Your task to perform on an android device: add a contact in the contacts app Image 0: 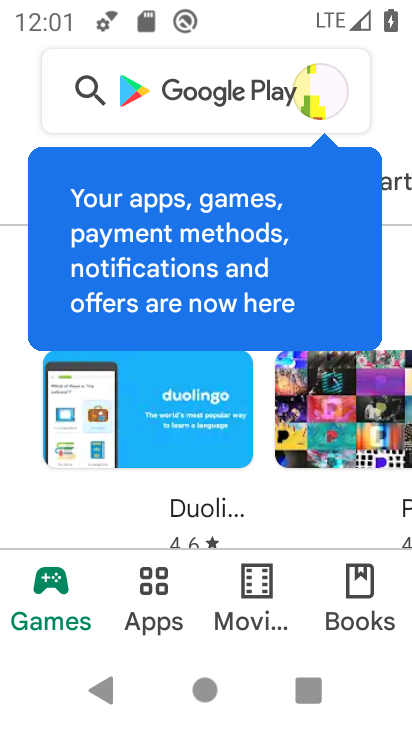
Step 0: press home button
Your task to perform on an android device: add a contact in the contacts app Image 1: 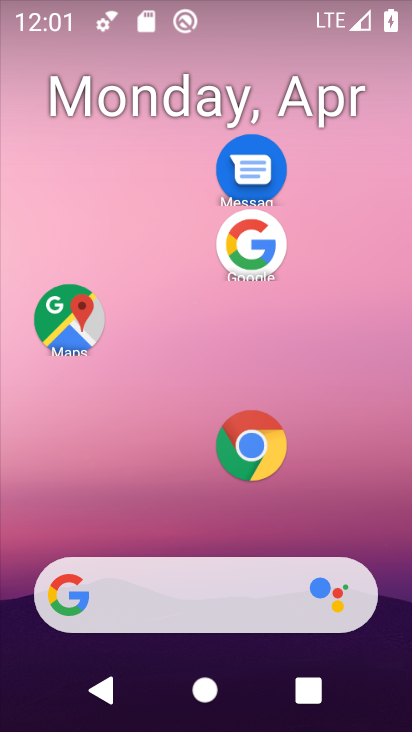
Step 1: drag from (210, 434) to (291, 170)
Your task to perform on an android device: add a contact in the contacts app Image 2: 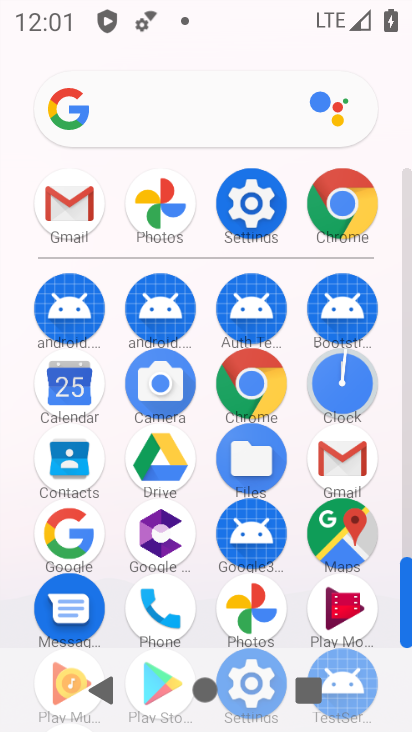
Step 2: click (74, 469)
Your task to perform on an android device: add a contact in the contacts app Image 3: 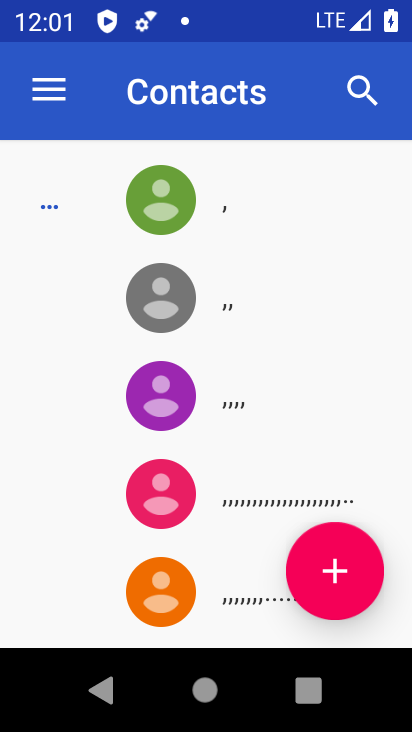
Step 3: click (331, 572)
Your task to perform on an android device: add a contact in the contacts app Image 4: 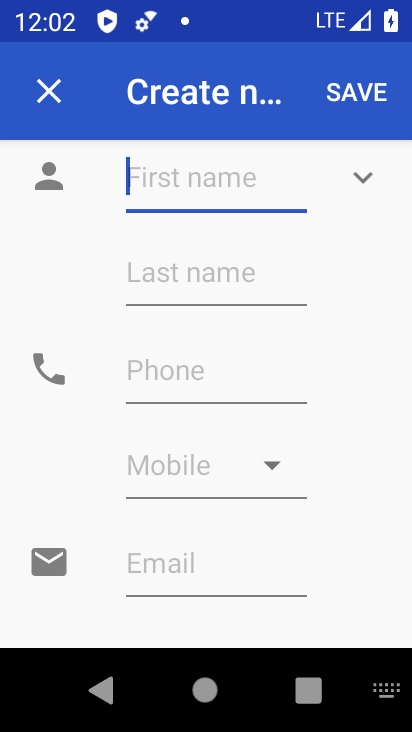
Step 4: type "cfrgdhhh"
Your task to perform on an android device: add a contact in the contacts app Image 5: 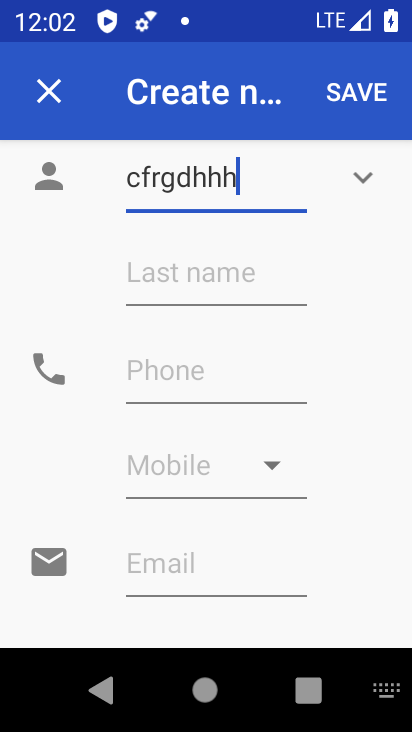
Step 5: click (139, 379)
Your task to perform on an android device: add a contact in the contacts app Image 6: 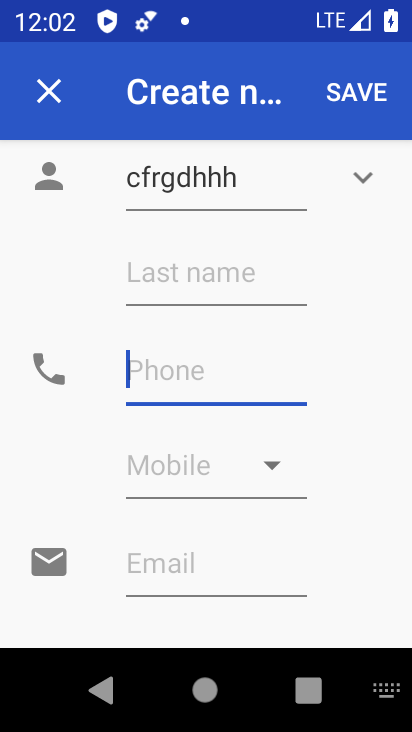
Step 6: type "07658764"
Your task to perform on an android device: add a contact in the contacts app Image 7: 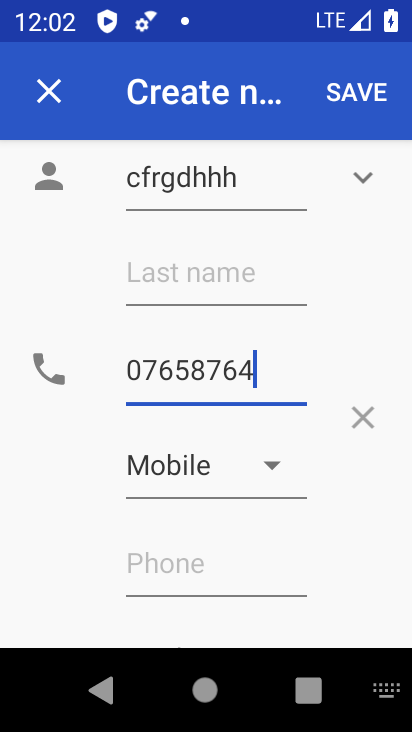
Step 7: click (368, 93)
Your task to perform on an android device: add a contact in the contacts app Image 8: 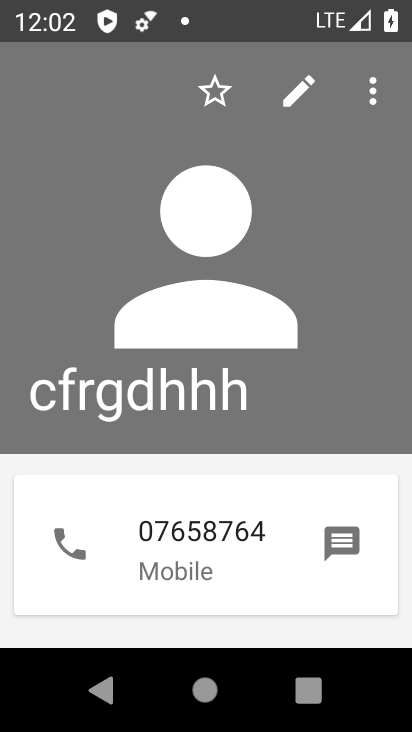
Step 8: task complete